Your task to perform on an android device: snooze an email in the gmail app Image 0: 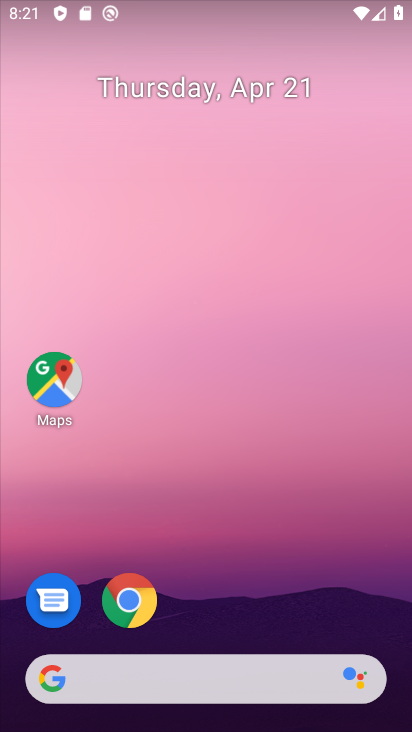
Step 0: drag from (73, 617) to (266, 320)
Your task to perform on an android device: snooze an email in the gmail app Image 1: 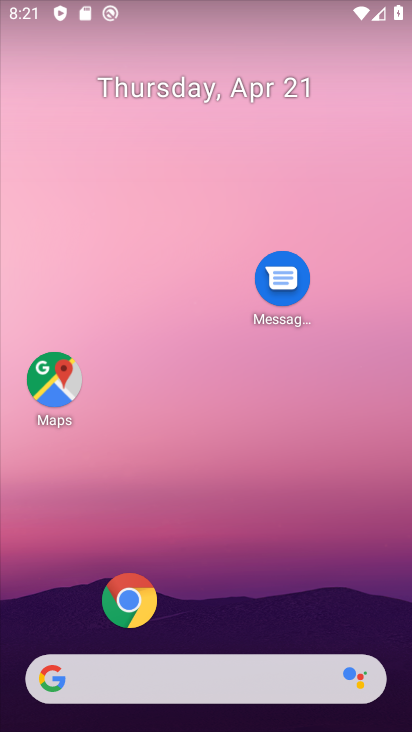
Step 1: drag from (72, 636) to (169, 224)
Your task to perform on an android device: snooze an email in the gmail app Image 2: 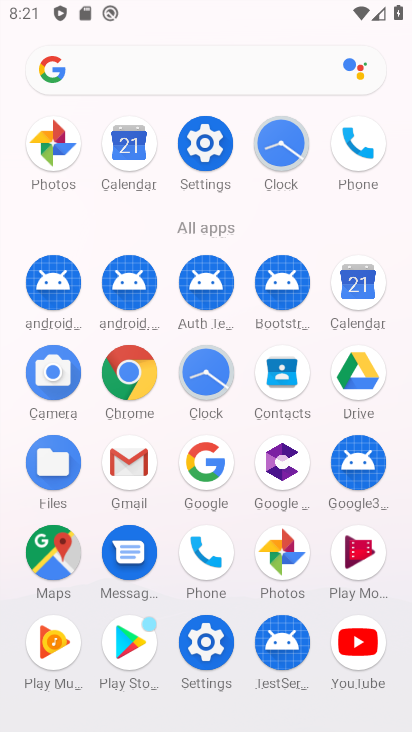
Step 2: click (126, 465)
Your task to perform on an android device: snooze an email in the gmail app Image 3: 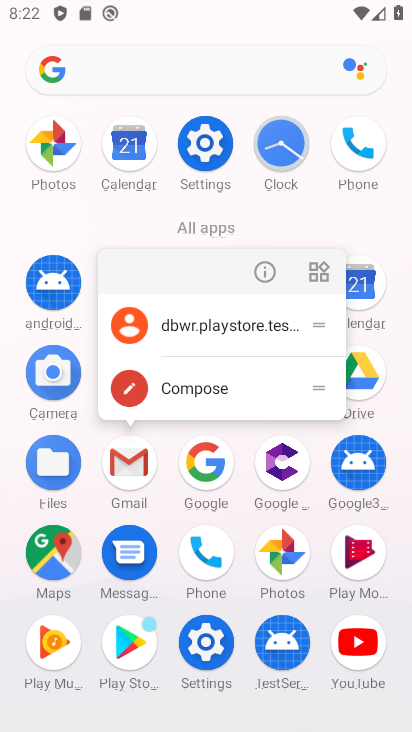
Step 3: click (267, 273)
Your task to perform on an android device: snooze an email in the gmail app Image 4: 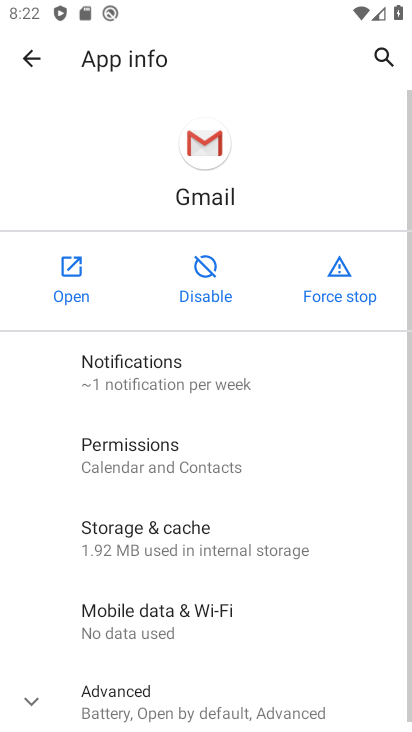
Step 4: click (68, 274)
Your task to perform on an android device: snooze an email in the gmail app Image 5: 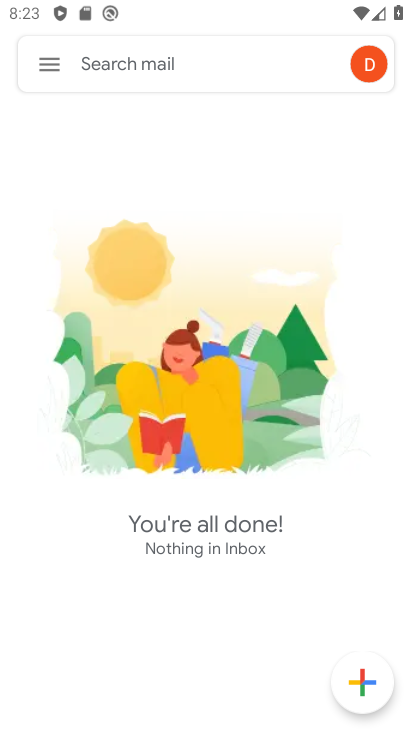
Step 5: click (41, 59)
Your task to perform on an android device: snooze an email in the gmail app Image 6: 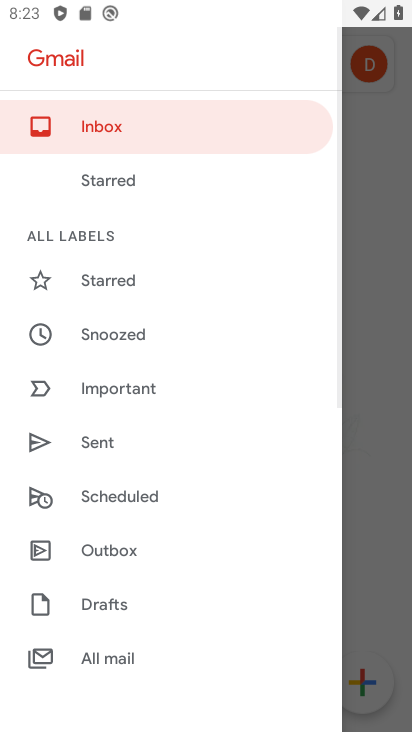
Step 6: click (123, 127)
Your task to perform on an android device: snooze an email in the gmail app Image 7: 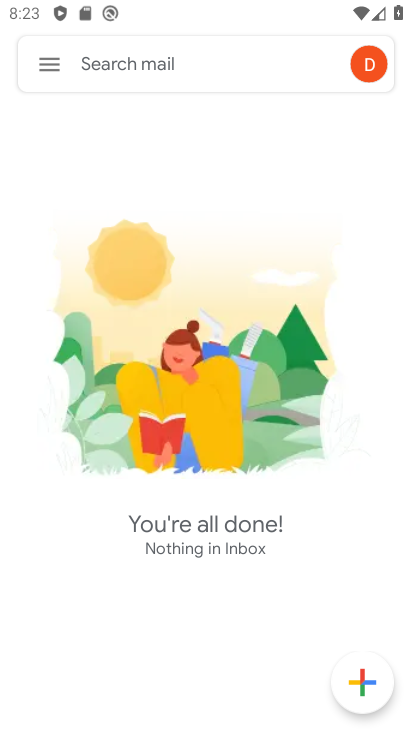
Step 7: click (48, 65)
Your task to perform on an android device: snooze an email in the gmail app Image 8: 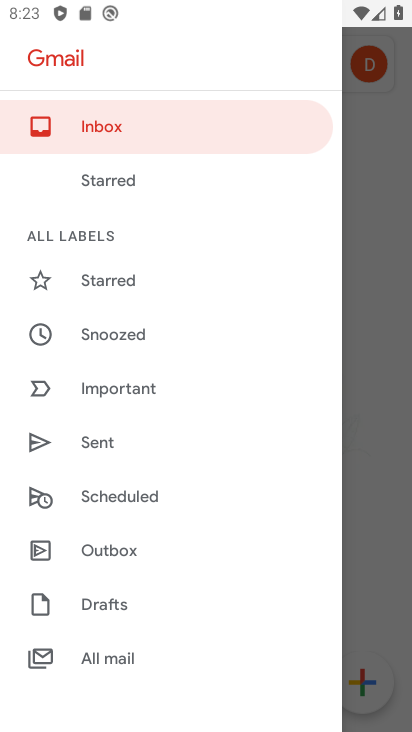
Step 8: click (108, 656)
Your task to perform on an android device: snooze an email in the gmail app Image 9: 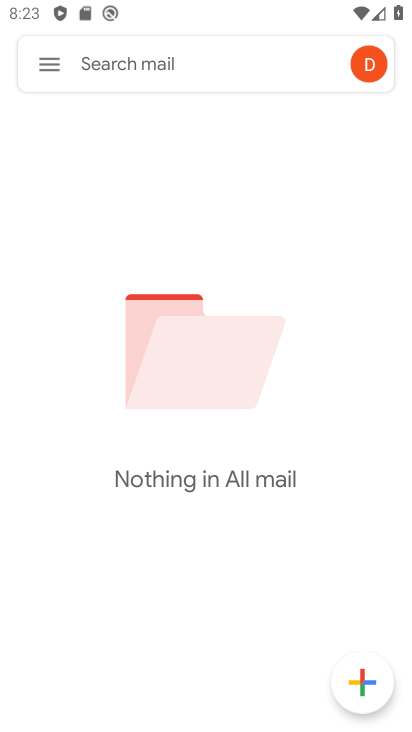
Step 9: task complete